Your task to perform on an android device: turn off location history Image 0: 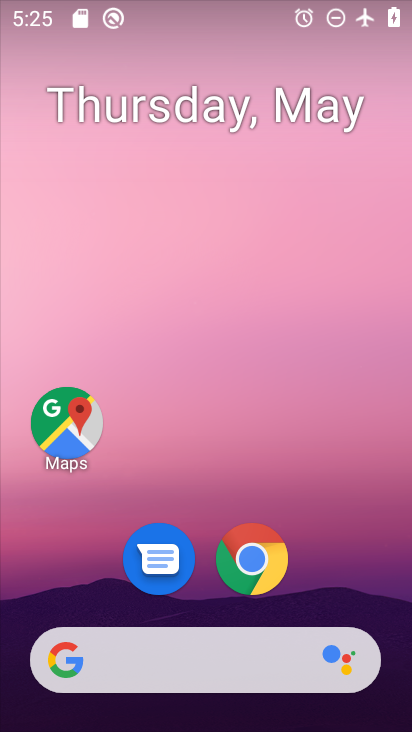
Step 0: drag from (345, 560) to (146, 23)
Your task to perform on an android device: turn off location history Image 1: 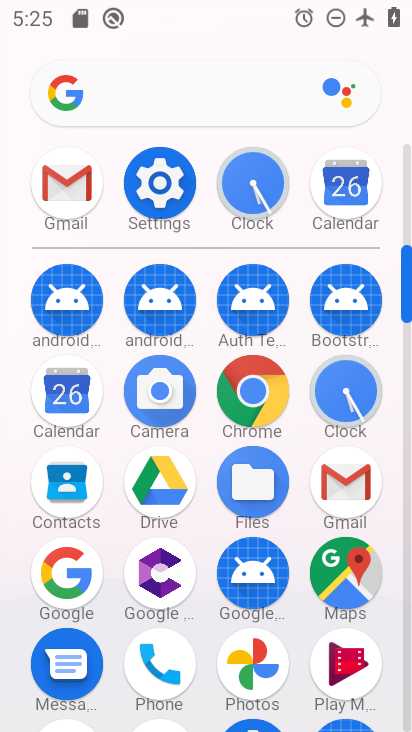
Step 1: click (76, 572)
Your task to perform on an android device: turn off location history Image 2: 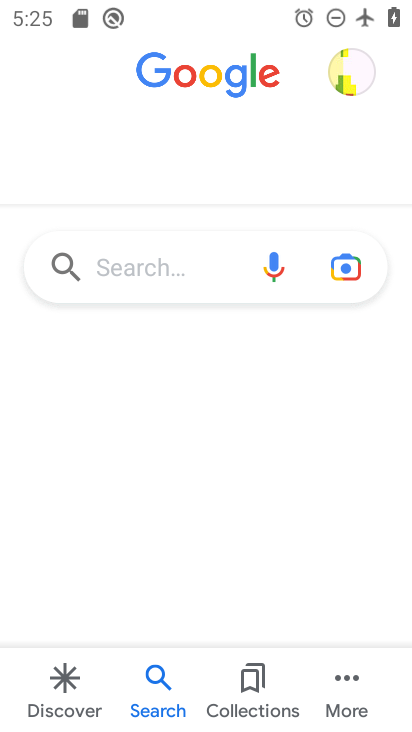
Step 2: press home button
Your task to perform on an android device: turn off location history Image 3: 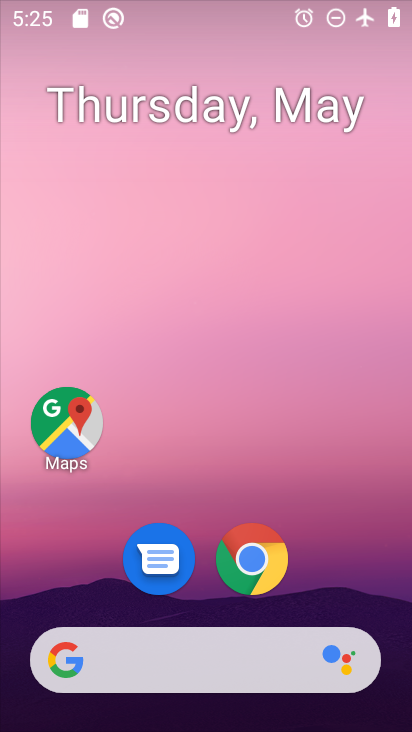
Step 3: drag from (345, 547) to (268, 19)
Your task to perform on an android device: turn off location history Image 4: 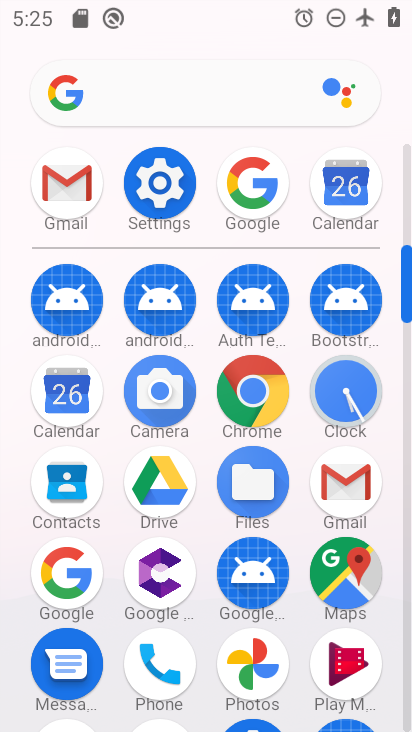
Step 4: click (173, 155)
Your task to perform on an android device: turn off location history Image 5: 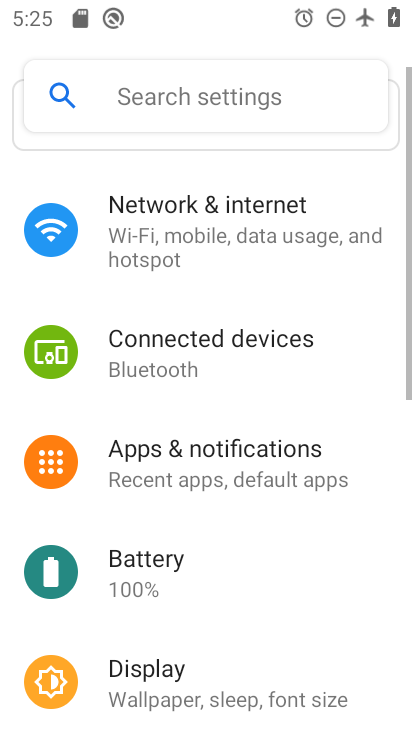
Step 5: drag from (275, 620) to (267, 85)
Your task to perform on an android device: turn off location history Image 6: 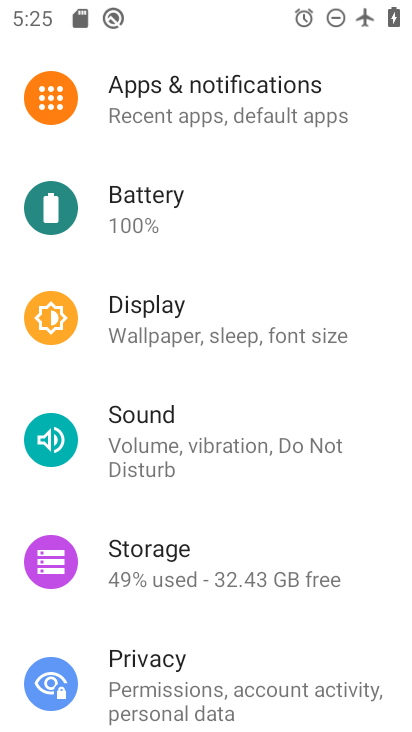
Step 6: drag from (224, 666) to (231, 136)
Your task to perform on an android device: turn off location history Image 7: 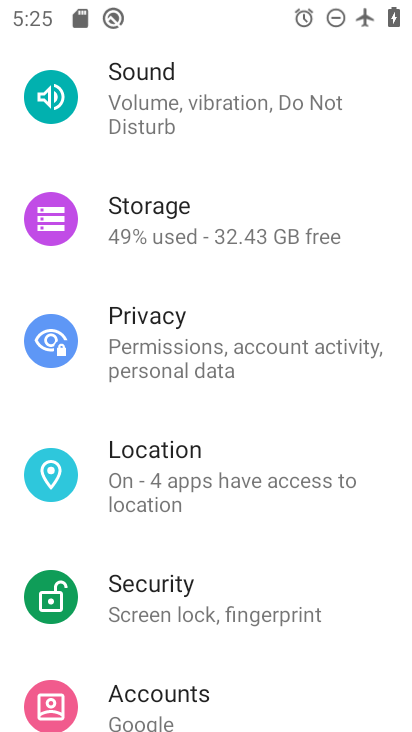
Step 7: click (199, 476)
Your task to perform on an android device: turn off location history Image 8: 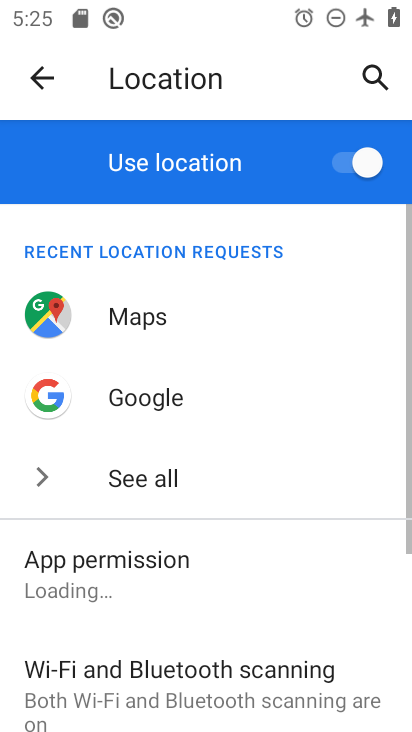
Step 8: drag from (256, 597) to (270, 161)
Your task to perform on an android device: turn off location history Image 9: 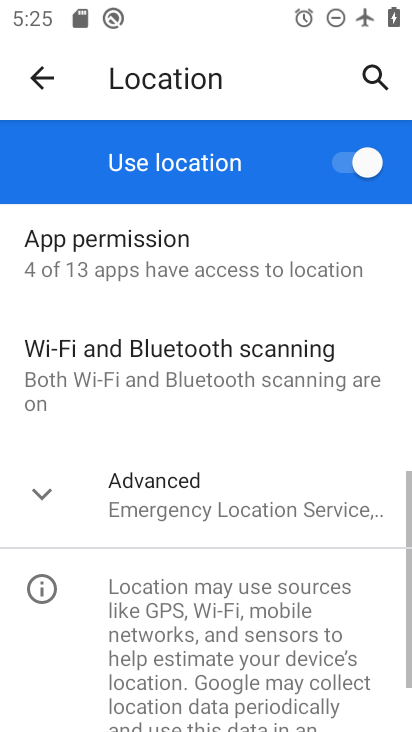
Step 9: click (184, 494)
Your task to perform on an android device: turn off location history Image 10: 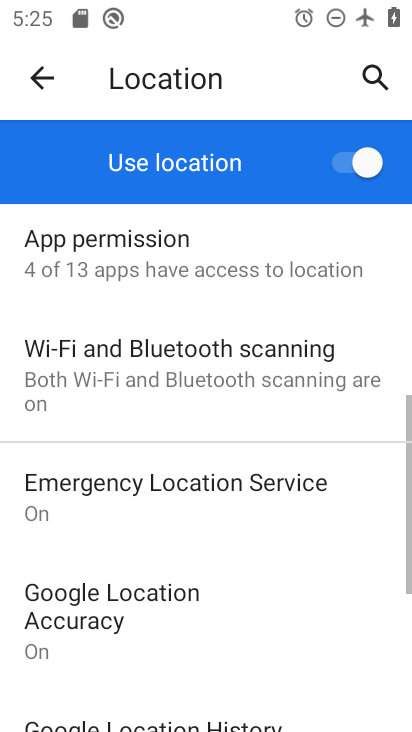
Step 10: drag from (260, 639) to (263, 217)
Your task to perform on an android device: turn off location history Image 11: 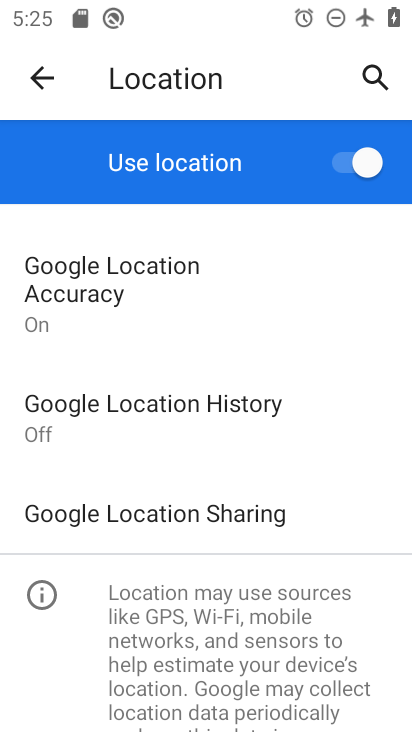
Step 11: click (233, 369)
Your task to perform on an android device: turn off location history Image 12: 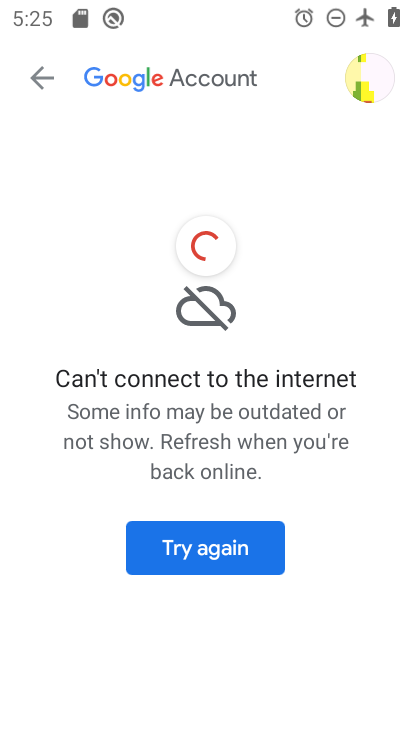
Step 12: task complete